Your task to perform on an android device: Empty the shopping cart on ebay.com. Add razer thresher to the cart on ebay.com Image 0: 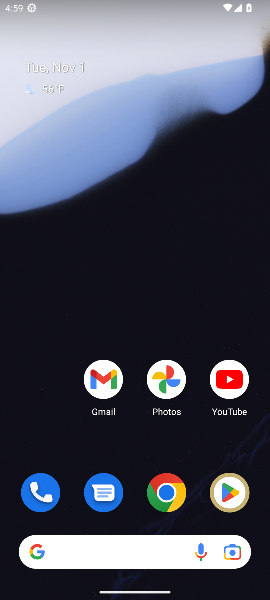
Step 0: drag from (51, 587) to (164, 181)
Your task to perform on an android device: Empty the shopping cart on ebay.com. Add razer thresher to the cart on ebay.com Image 1: 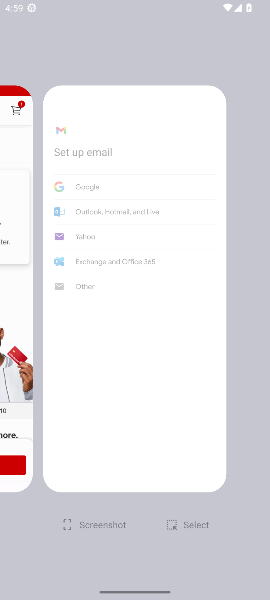
Step 1: drag from (23, 230) to (229, 243)
Your task to perform on an android device: Empty the shopping cart on ebay.com. Add razer thresher to the cart on ebay.com Image 2: 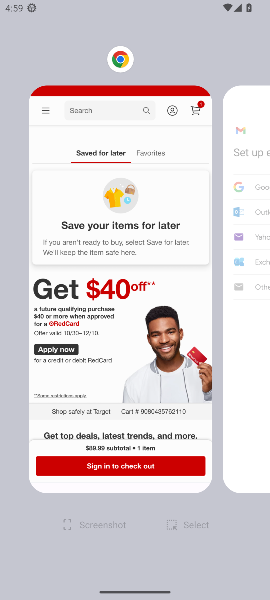
Step 2: drag from (76, 266) to (246, 275)
Your task to perform on an android device: Empty the shopping cart on ebay.com. Add razer thresher to the cart on ebay.com Image 3: 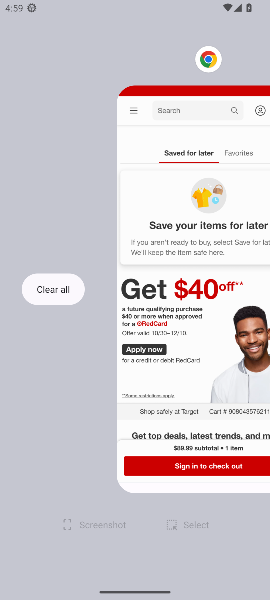
Step 3: drag from (17, 300) to (238, 302)
Your task to perform on an android device: Empty the shopping cart on ebay.com. Add razer thresher to the cart on ebay.com Image 4: 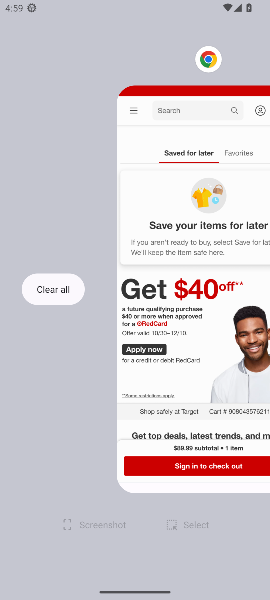
Step 4: click (34, 292)
Your task to perform on an android device: Empty the shopping cart on ebay.com. Add razer thresher to the cart on ebay.com Image 5: 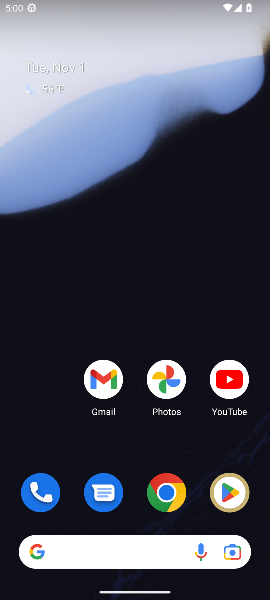
Step 5: click (164, 497)
Your task to perform on an android device: Empty the shopping cart on ebay.com. Add razer thresher to the cart on ebay.com Image 6: 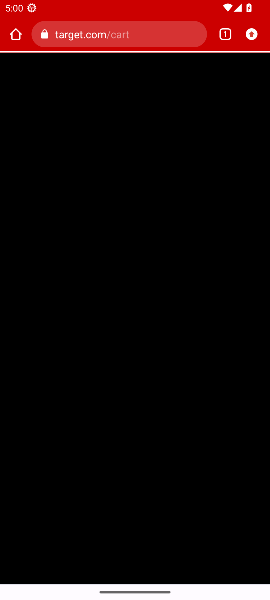
Step 6: click (167, 508)
Your task to perform on an android device: Empty the shopping cart on ebay.com. Add razer thresher to the cart on ebay.com Image 7: 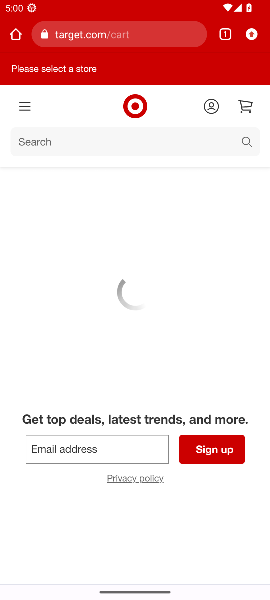
Step 7: click (109, 43)
Your task to perform on an android device: Empty the shopping cart on ebay.com. Add razer thresher to the cart on ebay.com Image 8: 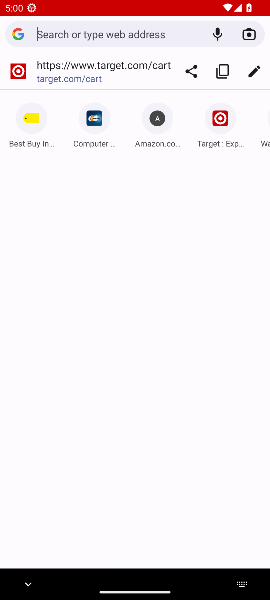
Step 8: type "ebay.com"
Your task to perform on an android device: Empty the shopping cart on ebay.com. Add razer thresher to the cart on ebay.com Image 9: 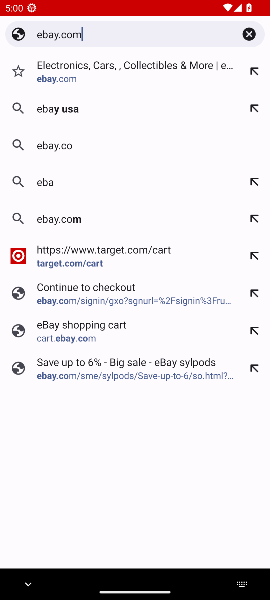
Step 9: type ""
Your task to perform on an android device: Empty the shopping cart on ebay.com. Add razer thresher to the cart on ebay.com Image 10: 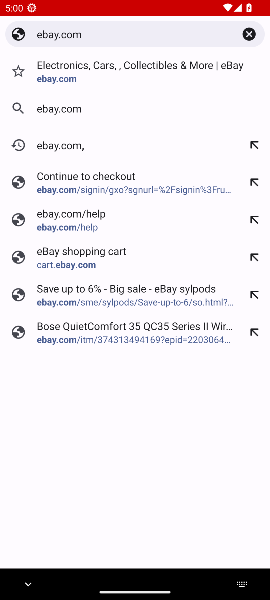
Step 10: press enter
Your task to perform on an android device: Empty the shopping cart on ebay.com. Add razer thresher to the cart on ebay.com Image 11: 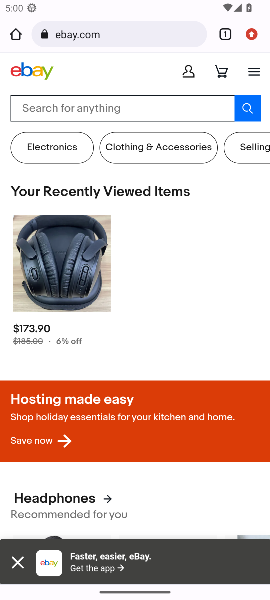
Step 11: click (56, 103)
Your task to perform on an android device: Empty the shopping cart on ebay.com. Add razer thresher to the cart on ebay.com Image 12: 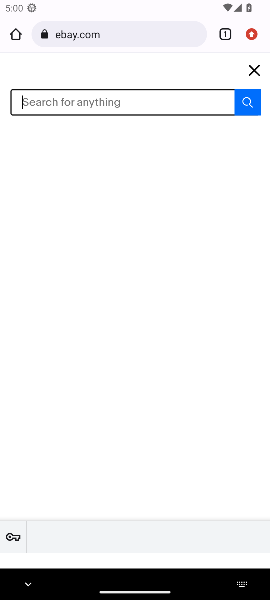
Step 12: type "razer thresher"
Your task to perform on an android device: Empty the shopping cart on ebay.com. Add razer thresher to the cart on ebay.com Image 13: 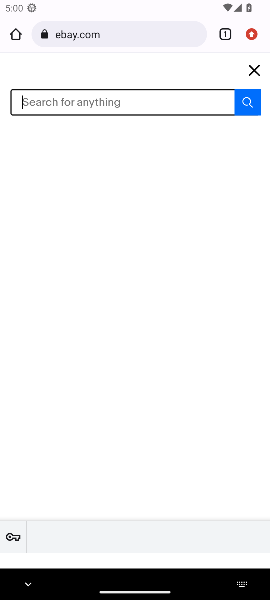
Step 13: type ""
Your task to perform on an android device: Empty the shopping cart on ebay.com. Add razer thresher to the cart on ebay.com Image 14: 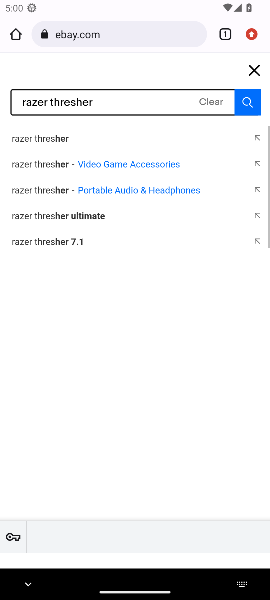
Step 14: click (31, 135)
Your task to perform on an android device: Empty the shopping cart on ebay.com. Add razer thresher to the cart on ebay.com Image 15: 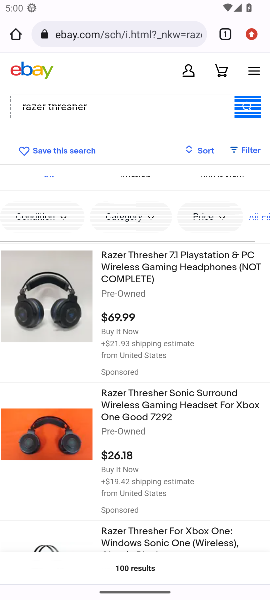
Step 15: click (182, 262)
Your task to perform on an android device: Empty the shopping cart on ebay.com. Add razer thresher to the cart on ebay.com Image 16: 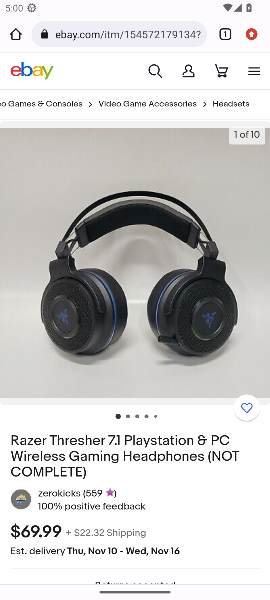
Step 16: drag from (158, 488) to (151, 228)
Your task to perform on an android device: Empty the shopping cart on ebay.com. Add razer thresher to the cart on ebay.com Image 17: 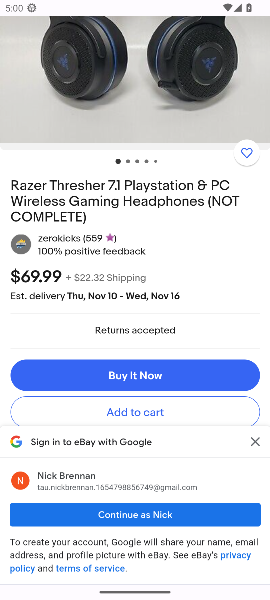
Step 17: click (254, 432)
Your task to perform on an android device: Empty the shopping cart on ebay.com. Add razer thresher to the cart on ebay.com Image 18: 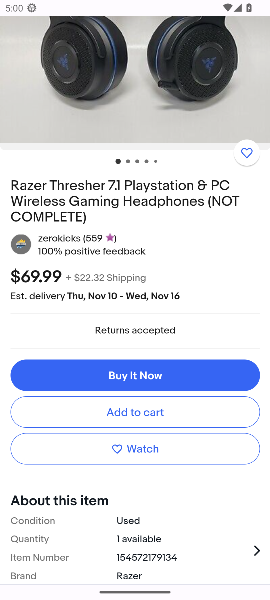
Step 18: click (212, 417)
Your task to perform on an android device: Empty the shopping cart on ebay.com. Add razer thresher to the cart on ebay.com Image 19: 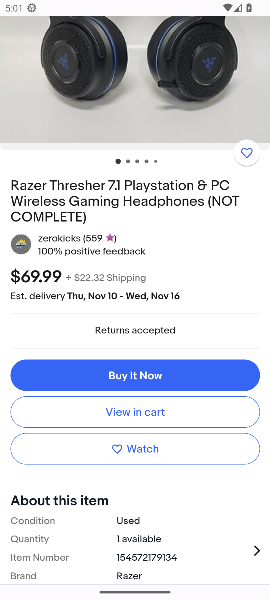
Step 19: click (101, 366)
Your task to perform on an android device: Empty the shopping cart on ebay.com. Add razer thresher to the cart on ebay.com Image 20: 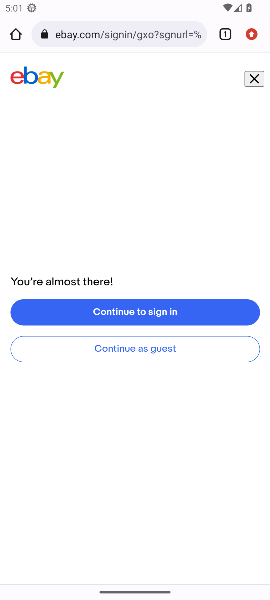
Step 20: click (98, 357)
Your task to perform on an android device: Empty the shopping cart on ebay.com. Add razer thresher to the cart on ebay.com Image 21: 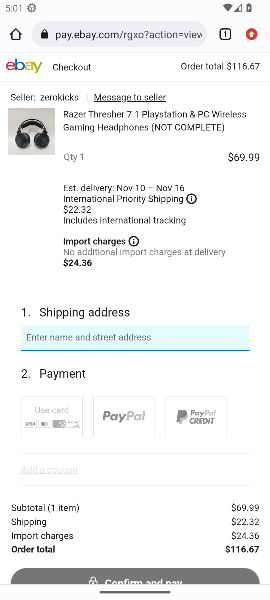
Step 21: task complete